Your task to perform on an android device: set the timer Image 0: 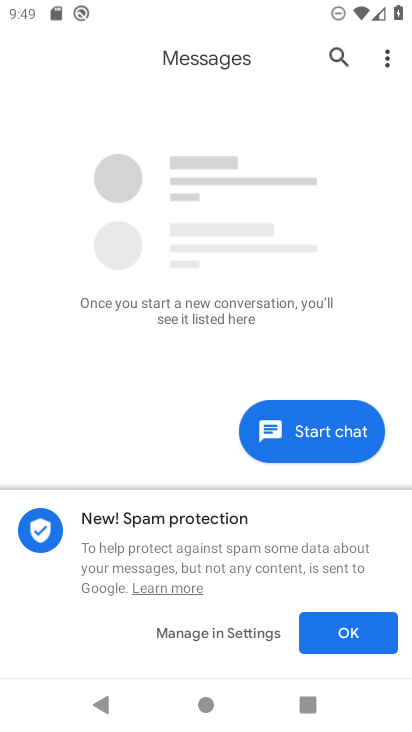
Step 0: press home button
Your task to perform on an android device: set the timer Image 1: 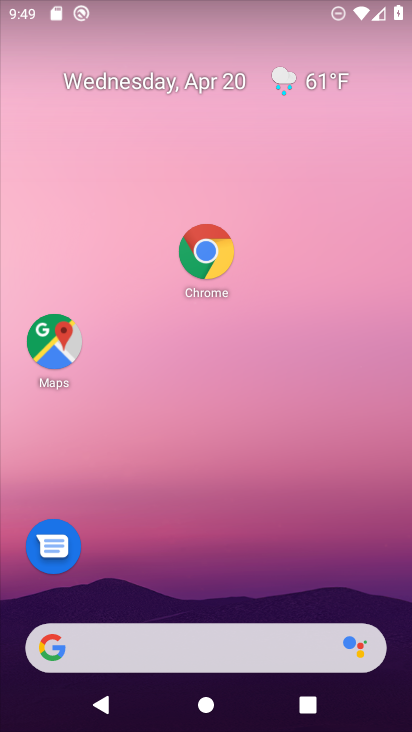
Step 1: drag from (126, 626) to (257, 236)
Your task to perform on an android device: set the timer Image 2: 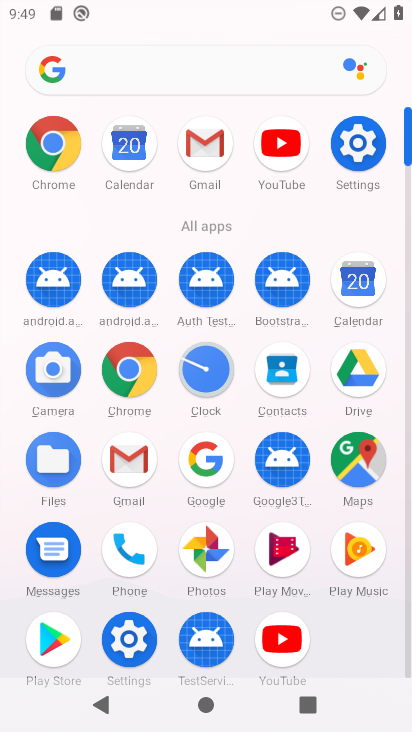
Step 2: click (200, 367)
Your task to perform on an android device: set the timer Image 3: 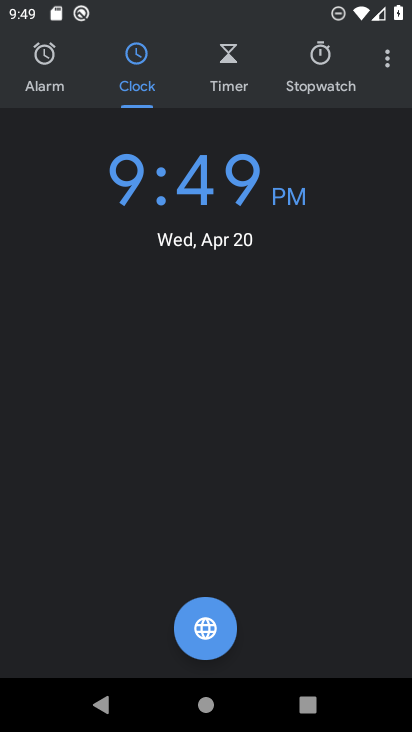
Step 3: click (232, 65)
Your task to perform on an android device: set the timer Image 4: 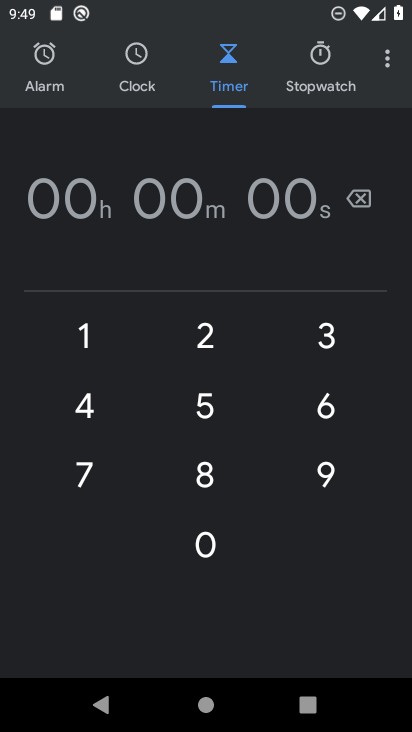
Step 4: click (204, 550)
Your task to perform on an android device: set the timer Image 5: 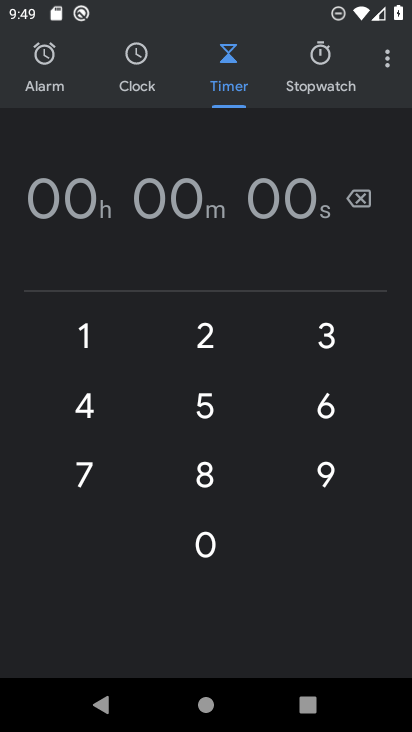
Step 5: click (212, 466)
Your task to perform on an android device: set the timer Image 6: 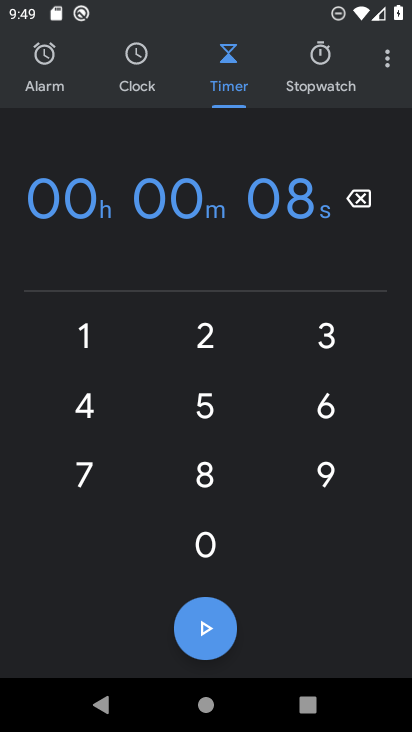
Step 6: click (208, 549)
Your task to perform on an android device: set the timer Image 7: 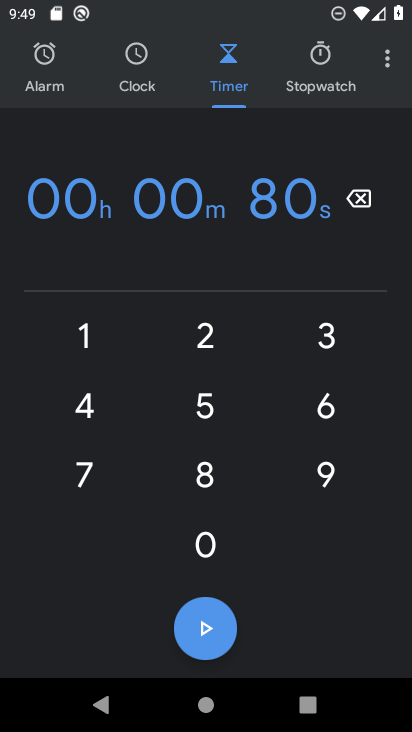
Step 7: click (77, 475)
Your task to perform on an android device: set the timer Image 8: 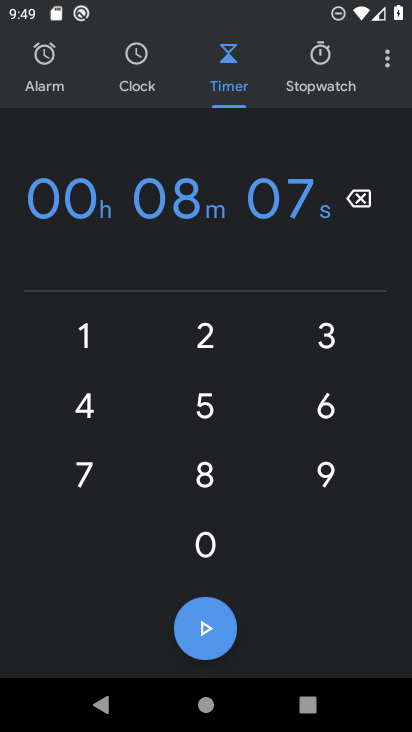
Step 8: click (202, 637)
Your task to perform on an android device: set the timer Image 9: 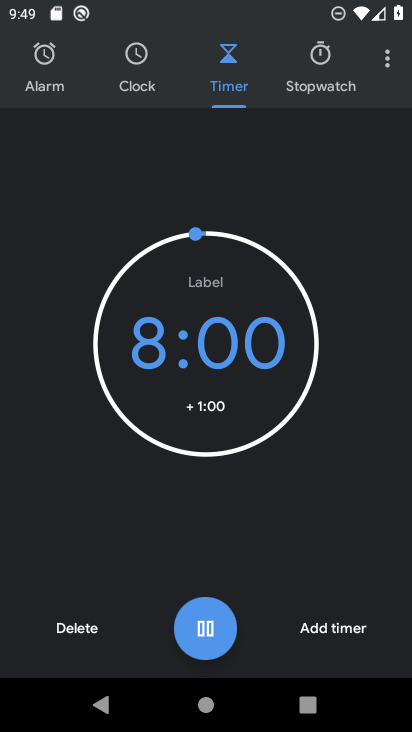
Step 9: task complete